Your task to perform on an android device: Open privacy settings Image 0: 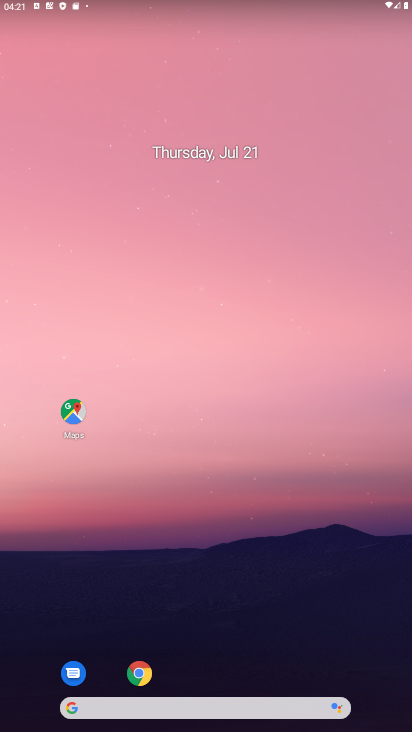
Step 0: drag from (385, 673) to (325, 315)
Your task to perform on an android device: Open privacy settings Image 1: 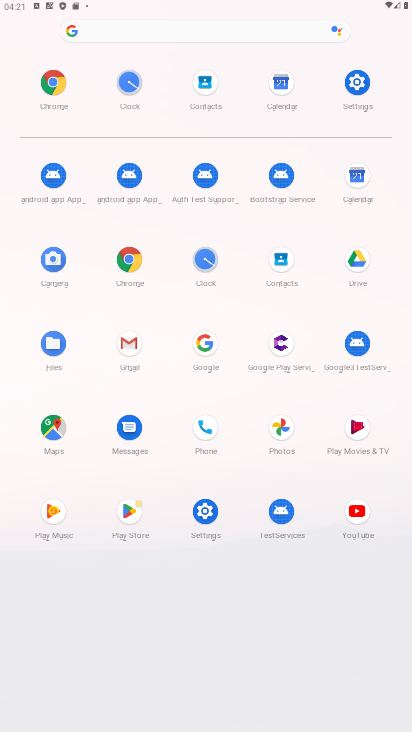
Step 1: click (203, 511)
Your task to perform on an android device: Open privacy settings Image 2: 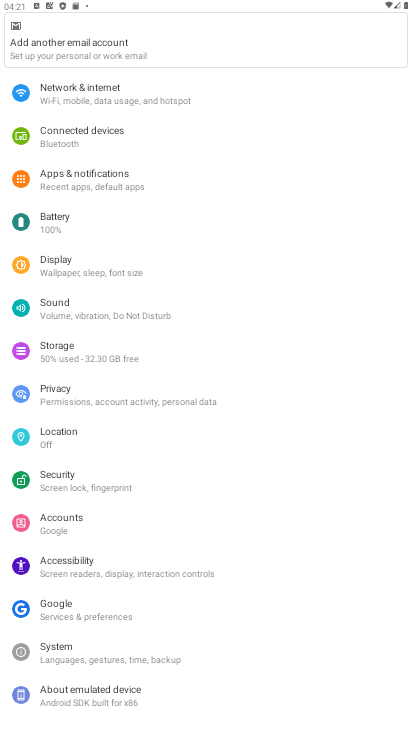
Step 2: click (63, 395)
Your task to perform on an android device: Open privacy settings Image 3: 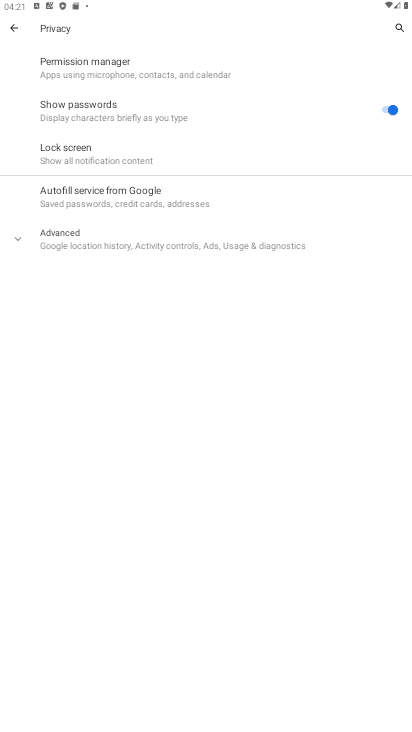
Step 3: click (21, 236)
Your task to perform on an android device: Open privacy settings Image 4: 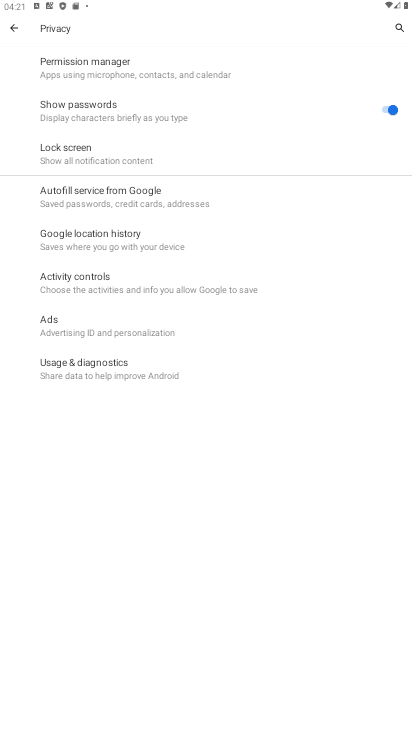
Step 4: task complete